Your task to perform on an android device: Open Chrome and go to settings Image 0: 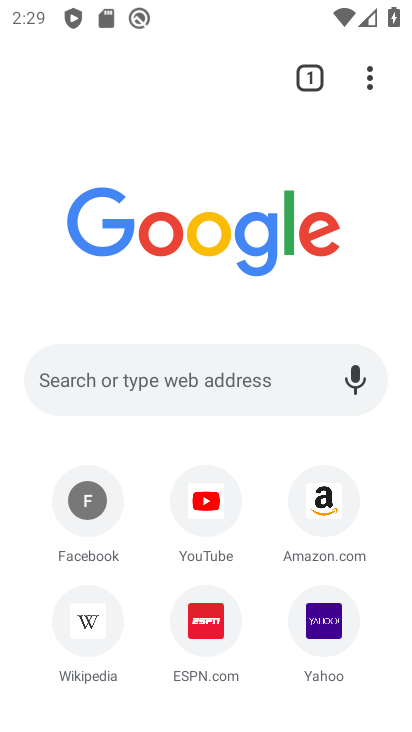
Step 0: click (373, 74)
Your task to perform on an android device: Open Chrome and go to settings Image 1: 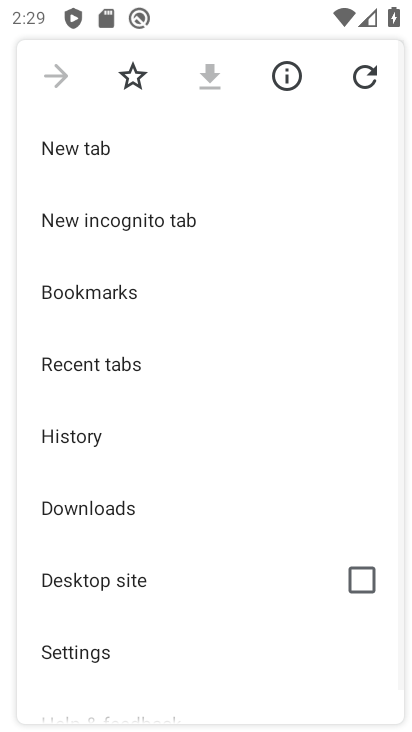
Step 1: click (148, 649)
Your task to perform on an android device: Open Chrome and go to settings Image 2: 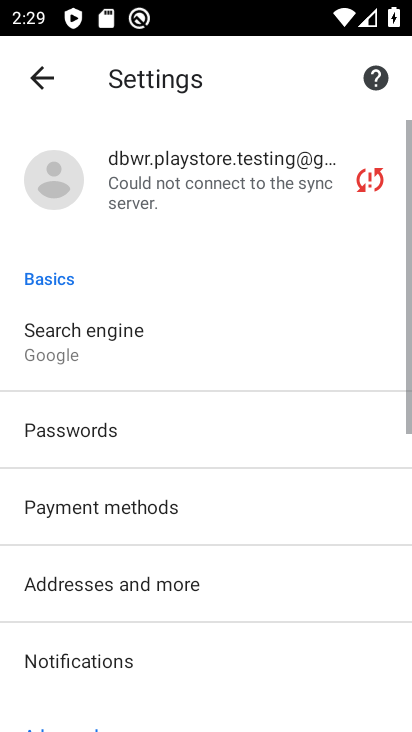
Step 2: task complete